Your task to perform on an android device: move a message to another label in the gmail app Image 0: 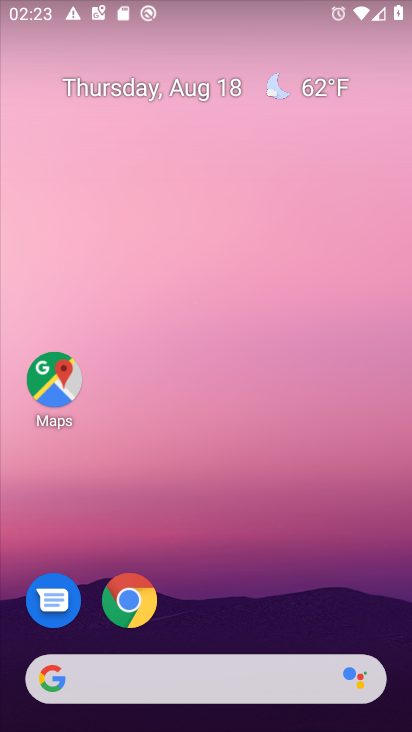
Step 0: press home button
Your task to perform on an android device: move a message to another label in the gmail app Image 1: 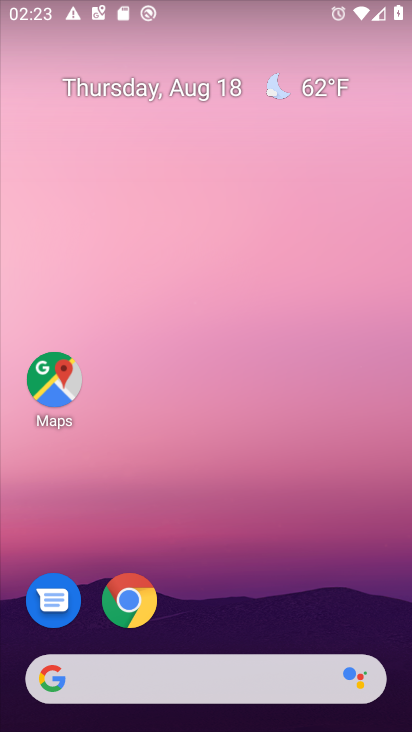
Step 1: drag from (245, 606) to (254, 74)
Your task to perform on an android device: move a message to another label in the gmail app Image 2: 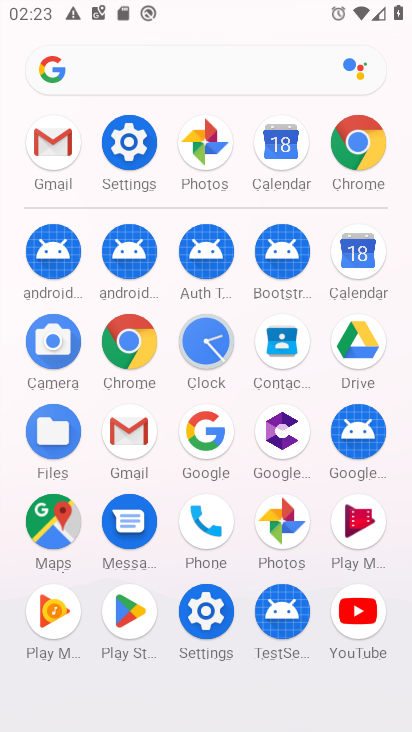
Step 2: click (45, 123)
Your task to perform on an android device: move a message to another label in the gmail app Image 3: 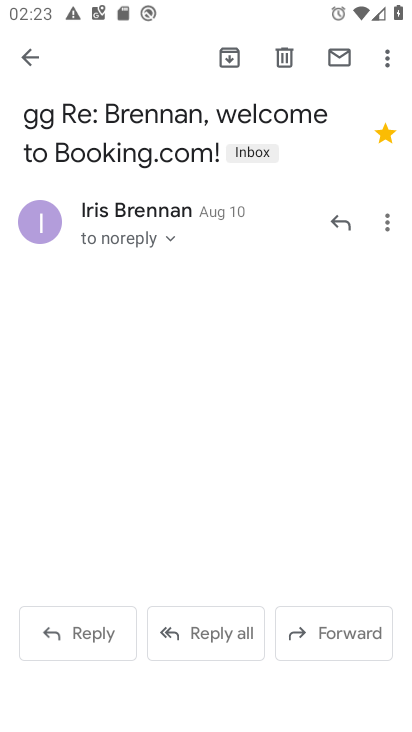
Step 3: click (26, 47)
Your task to perform on an android device: move a message to another label in the gmail app Image 4: 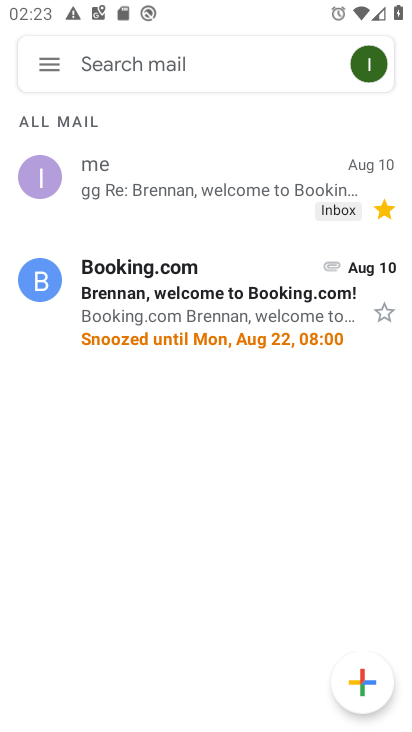
Step 4: click (194, 178)
Your task to perform on an android device: move a message to another label in the gmail app Image 5: 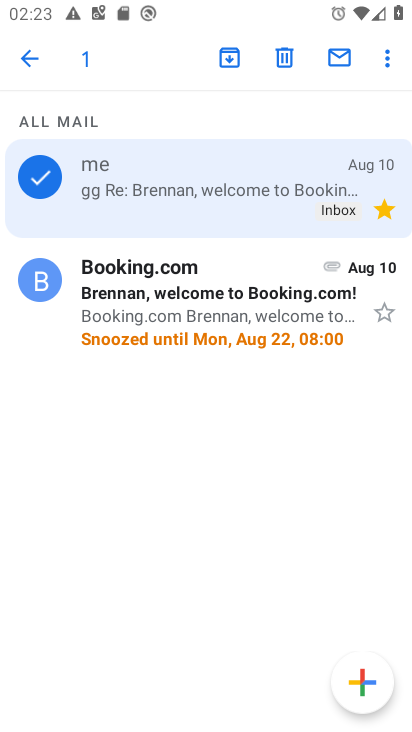
Step 5: click (385, 58)
Your task to perform on an android device: move a message to another label in the gmail app Image 6: 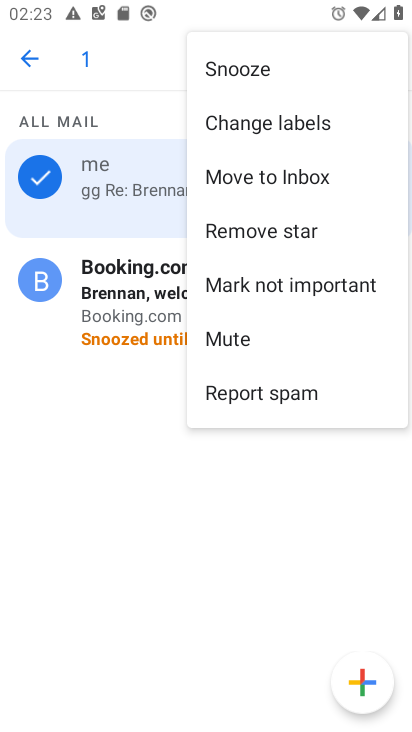
Step 6: click (283, 127)
Your task to perform on an android device: move a message to another label in the gmail app Image 7: 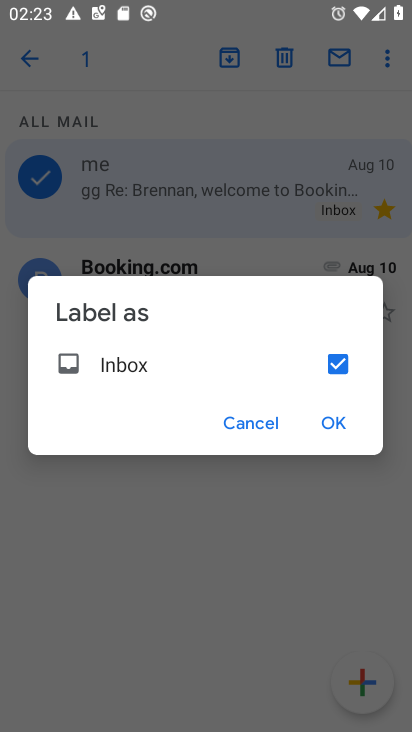
Step 7: click (328, 416)
Your task to perform on an android device: move a message to another label in the gmail app Image 8: 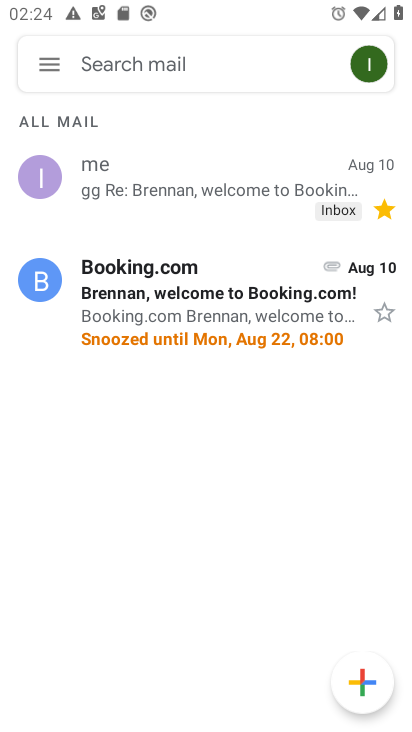
Step 8: task complete